Your task to perform on an android device: Open CNN.com Image 0: 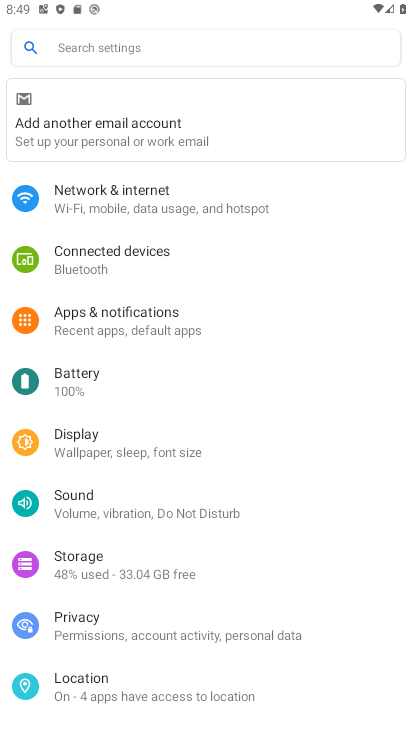
Step 0: press home button
Your task to perform on an android device: Open CNN.com Image 1: 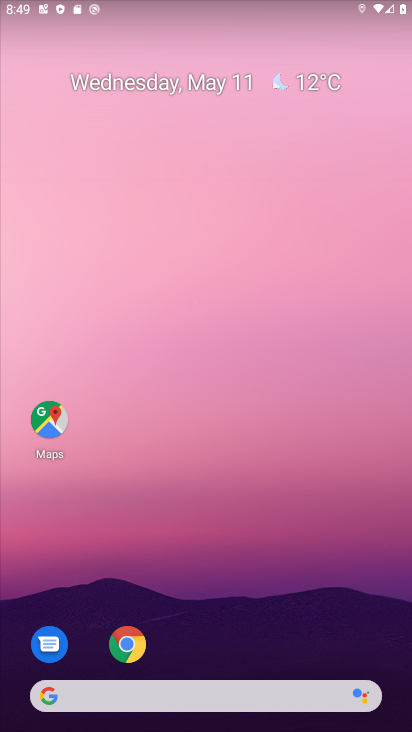
Step 1: click (141, 645)
Your task to perform on an android device: Open CNN.com Image 2: 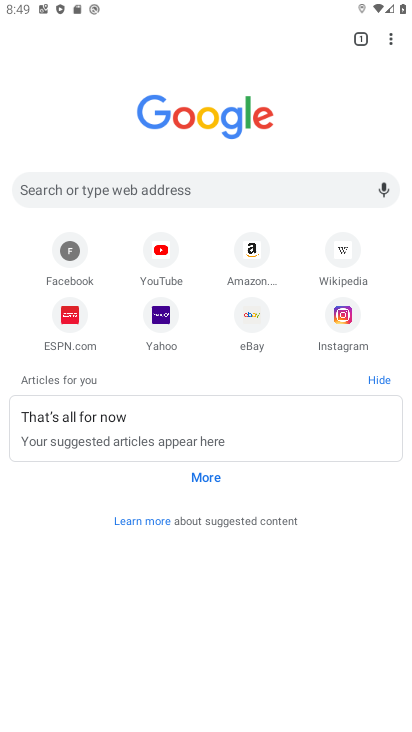
Step 2: click (188, 187)
Your task to perform on an android device: Open CNN.com Image 3: 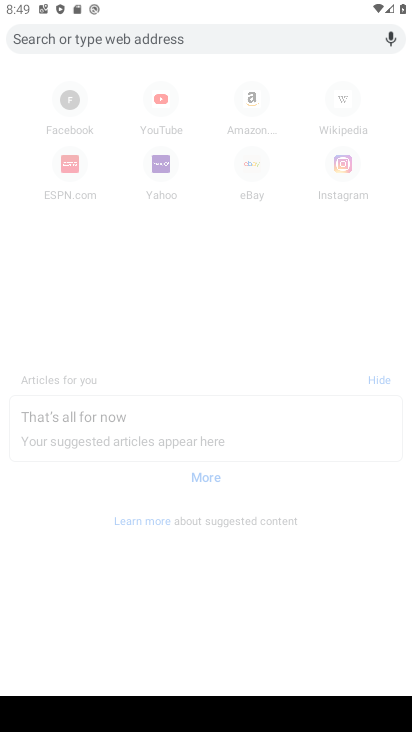
Step 3: type "cnn.com"
Your task to perform on an android device: Open CNN.com Image 4: 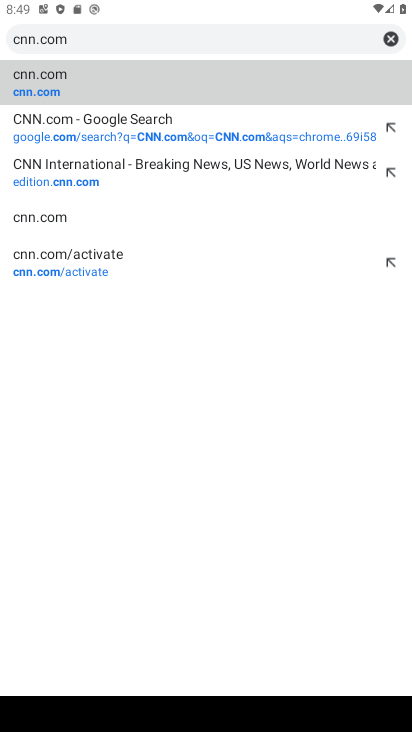
Step 4: click (40, 75)
Your task to perform on an android device: Open CNN.com Image 5: 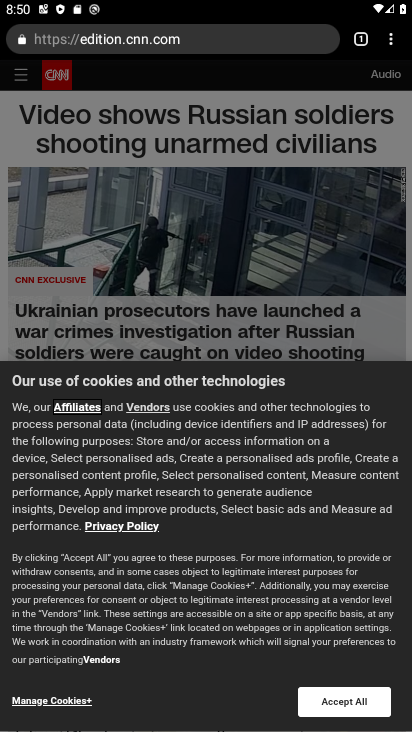
Step 5: task complete